Your task to perform on an android device: make emails show in primary in the gmail app Image 0: 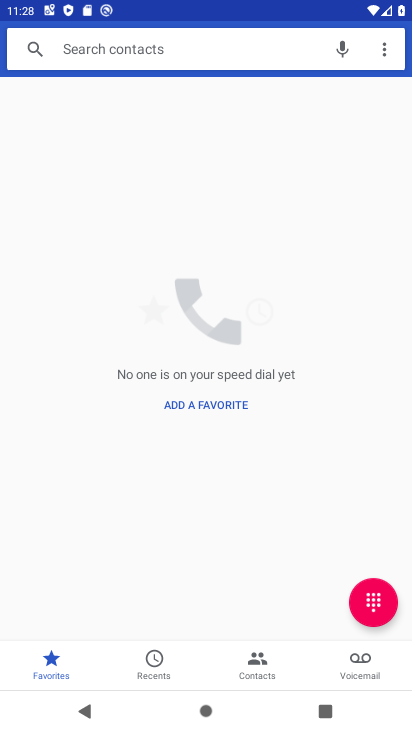
Step 0: press home button
Your task to perform on an android device: make emails show in primary in the gmail app Image 1: 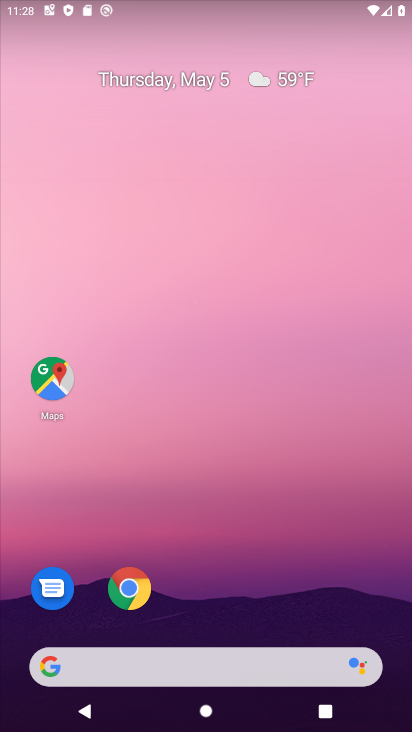
Step 1: drag from (252, 574) to (258, 30)
Your task to perform on an android device: make emails show in primary in the gmail app Image 2: 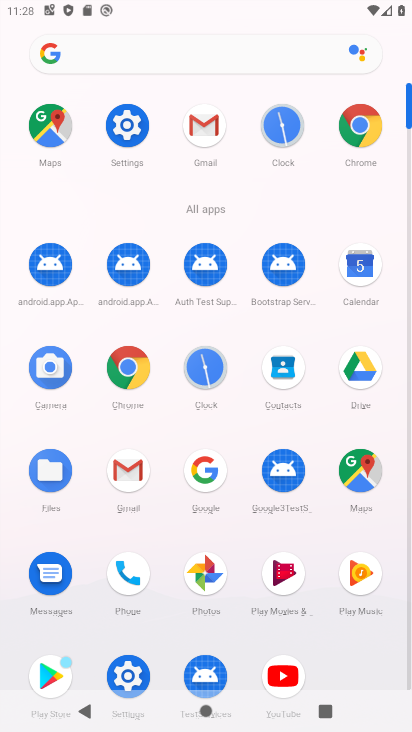
Step 2: click (197, 115)
Your task to perform on an android device: make emails show in primary in the gmail app Image 3: 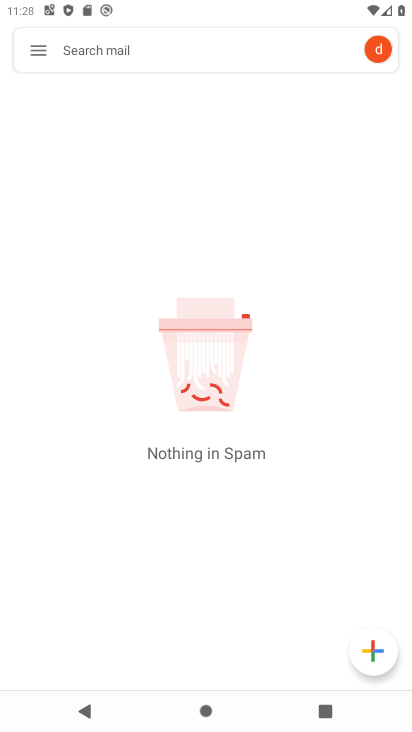
Step 3: click (36, 52)
Your task to perform on an android device: make emails show in primary in the gmail app Image 4: 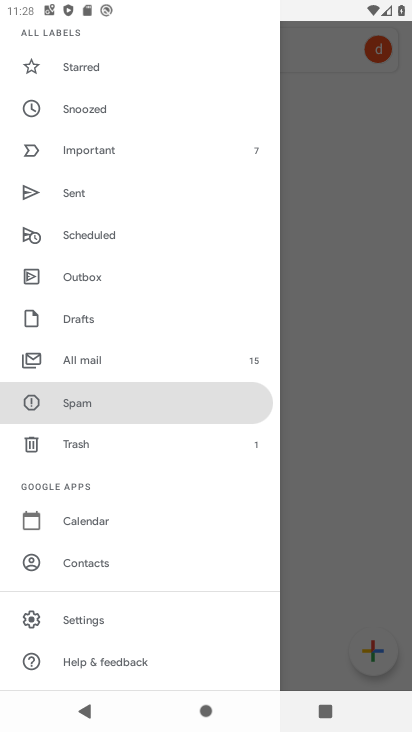
Step 4: click (85, 612)
Your task to perform on an android device: make emails show in primary in the gmail app Image 5: 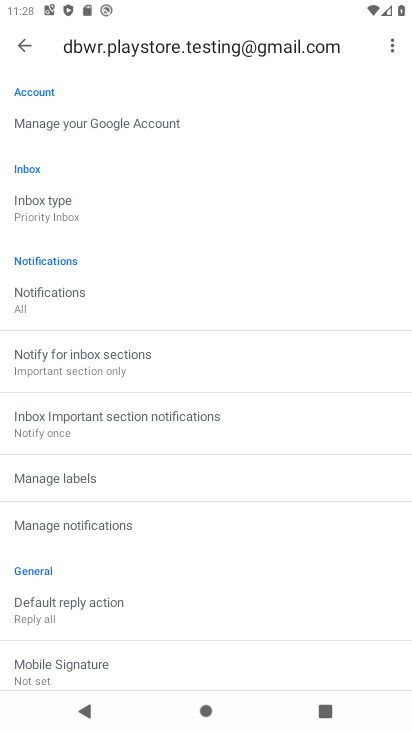
Step 5: click (48, 200)
Your task to perform on an android device: make emails show in primary in the gmail app Image 6: 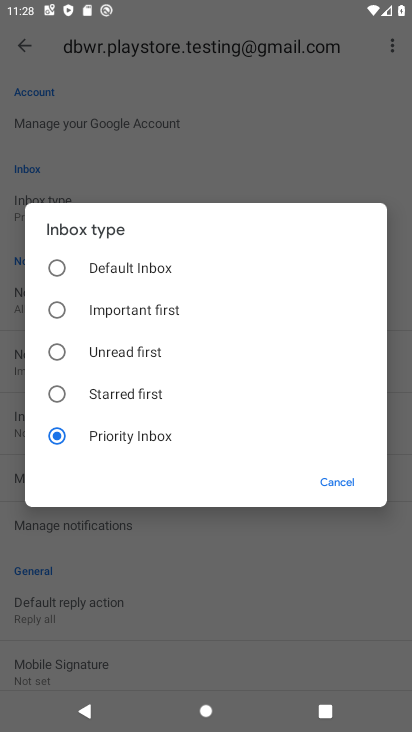
Step 6: click (54, 259)
Your task to perform on an android device: make emails show in primary in the gmail app Image 7: 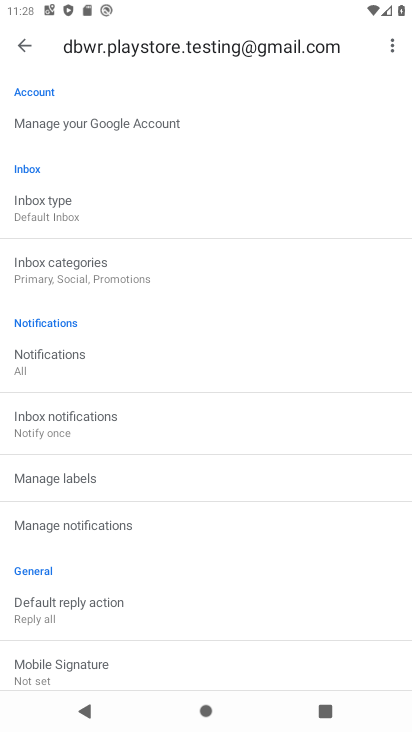
Step 7: click (89, 269)
Your task to perform on an android device: make emails show in primary in the gmail app Image 8: 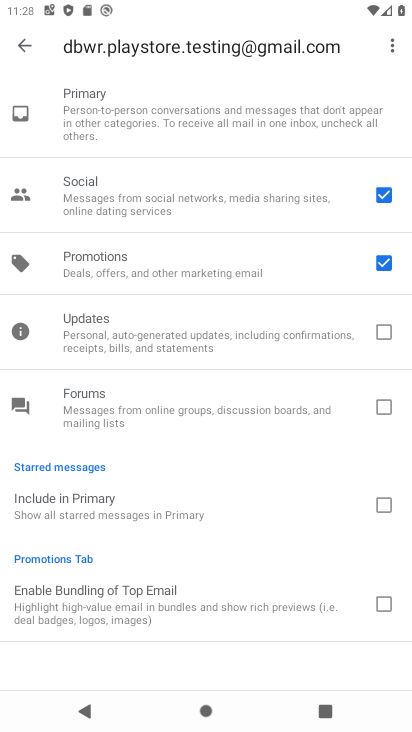
Step 8: click (381, 264)
Your task to perform on an android device: make emails show in primary in the gmail app Image 9: 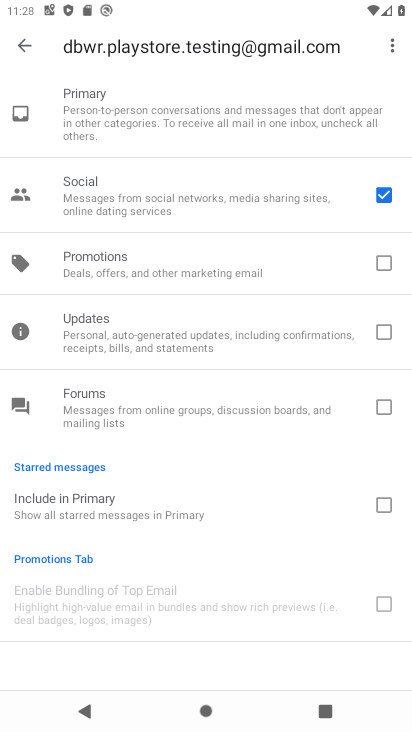
Step 9: click (385, 192)
Your task to perform on an android device: make emails show in primary in the gmail app Image 10: 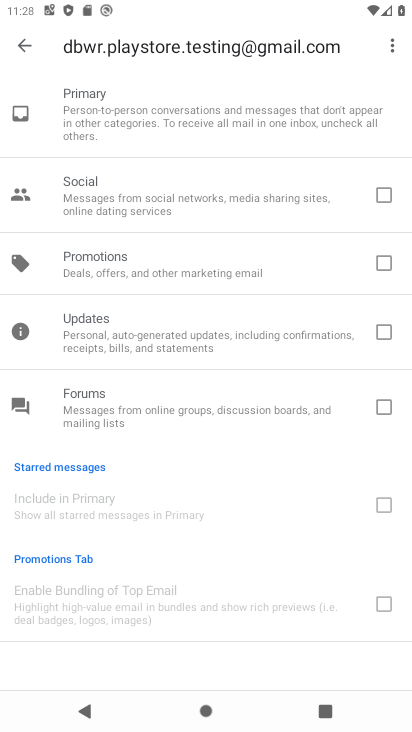
Step 10: click (27, 46)
Your task to perform on an android device: make emails show in primary in the gmail app Image 11: 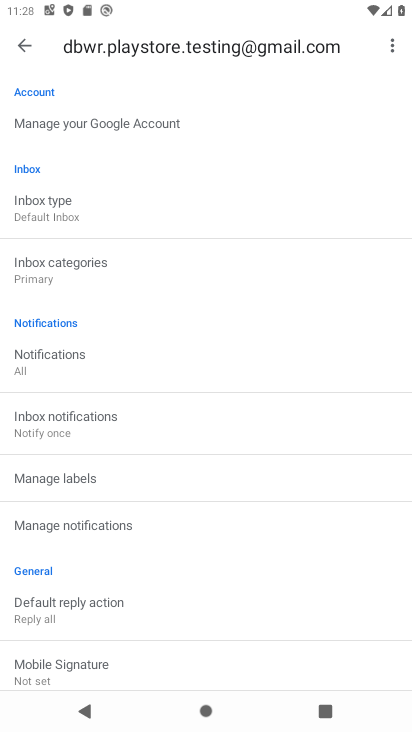
Step 11: task complete